Your task to perform on an android device: open wifi settings Image 0: 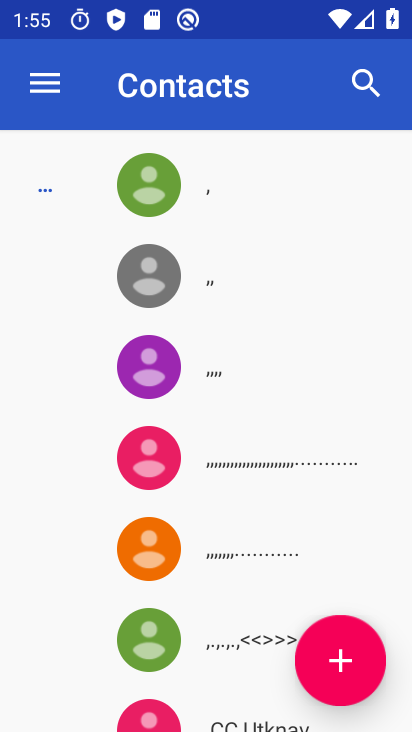
Step 0: press home button
Your task to perform on an android device: open wifi settings Image 1: 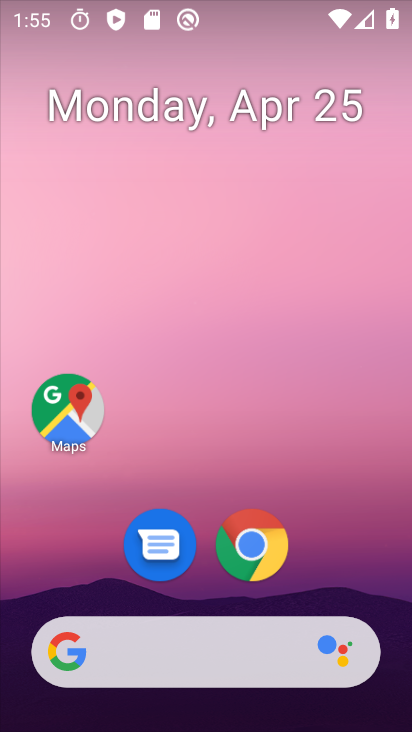
Step 1: drag from (312, 478) to (299, 122)
Your task to perform on an android device: open wifi settings Image 2: 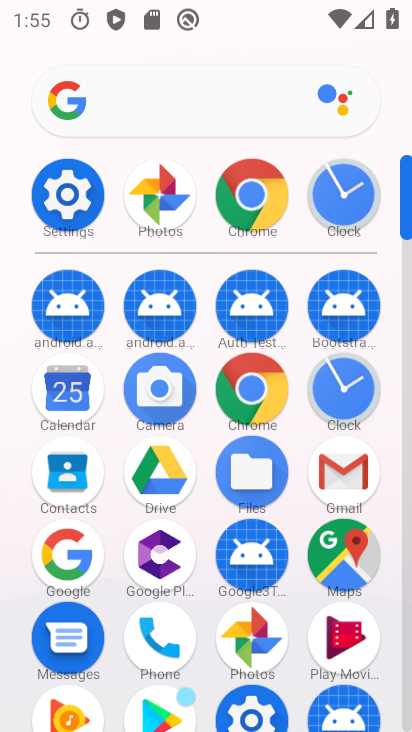
Step 2: click (71, 188)
Your task to perform on an android device: open wifi settings Image 3: 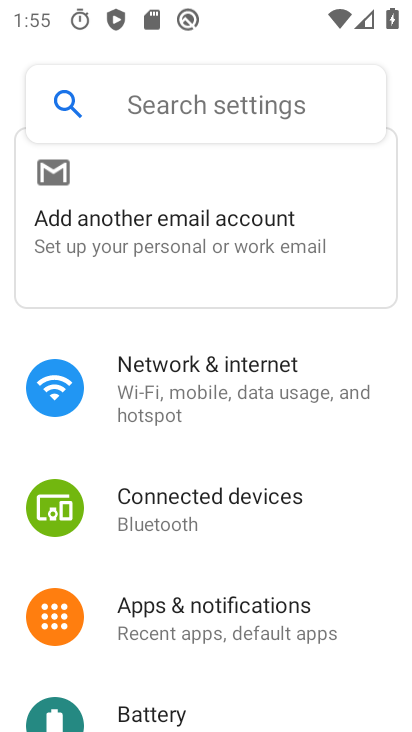
Step 3: click (231, 389)
Your task to perform on an android device: open wifi settings Image 4: 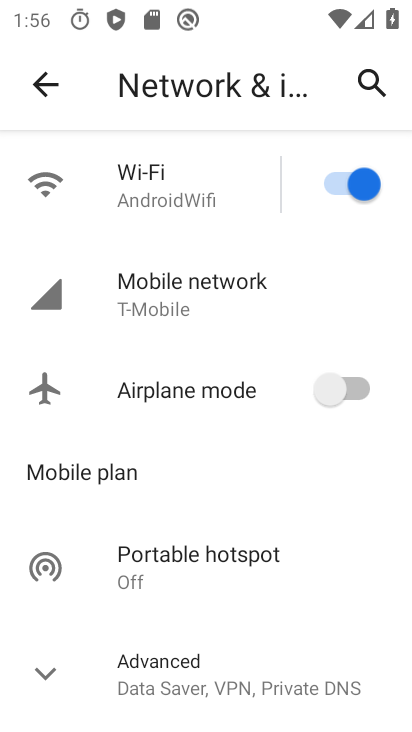
Step 4: click (189, 192)
Your task to perform on an android device: open wifi settings Image 5: 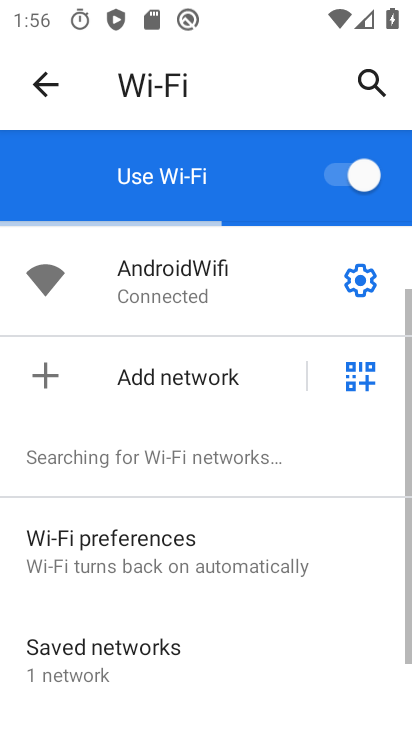
Step 5: task complete